Your task to perform on an android device: Toggle the flashlight Image 0: 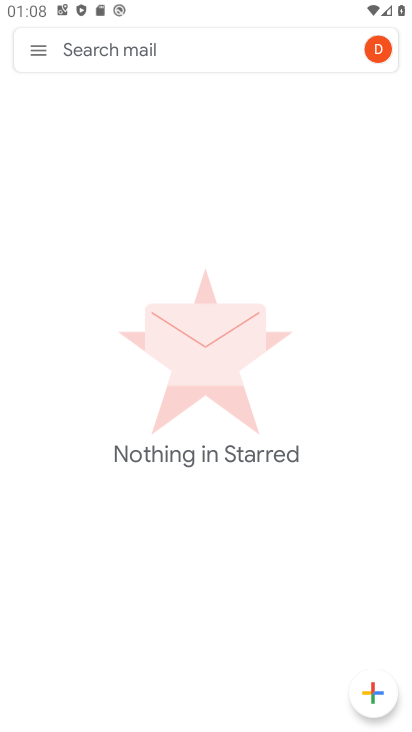
Step 0: press home button
Your task to perform on an android device: Toggle the flashlight Image 1: 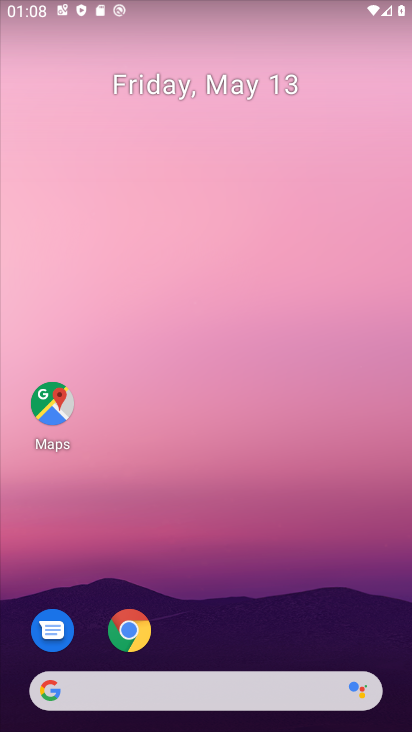
Step 1: drag from (249, 690) to (353, 130)
Your task to perform on an android device: Toggle the flashlight Image 2: 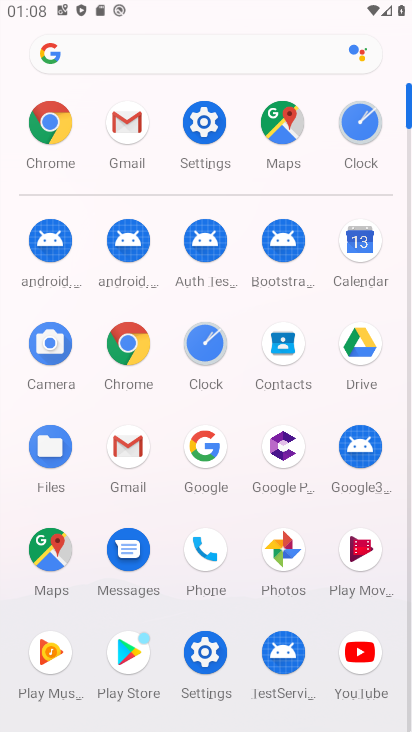
Step 2: click (199, 119)
Your task to perform on an android device: Toggle the flashlight Image 3: 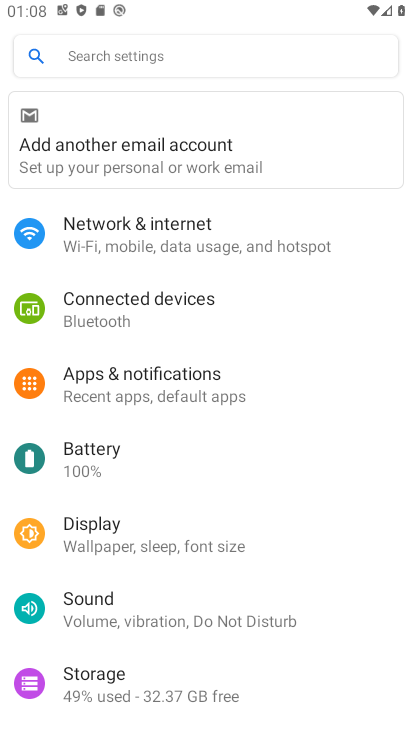
Step 3: click (138, 67)
Your task to perform on an android device: Toggle the flashlight Image 4: 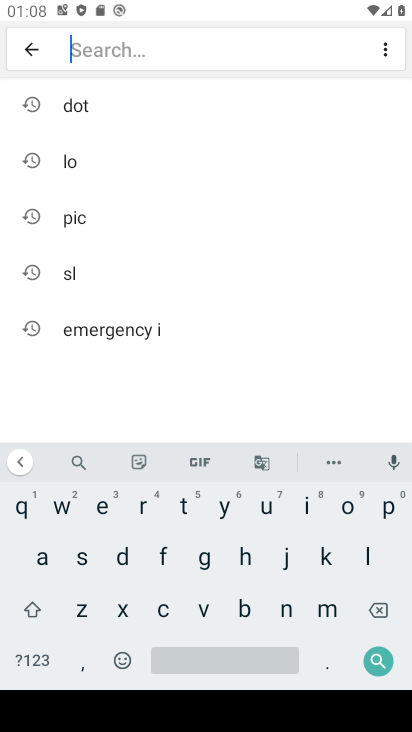
Step 4: click (158, 557)
Your task to perform on an android device: Toggle the flashlight Image 5: 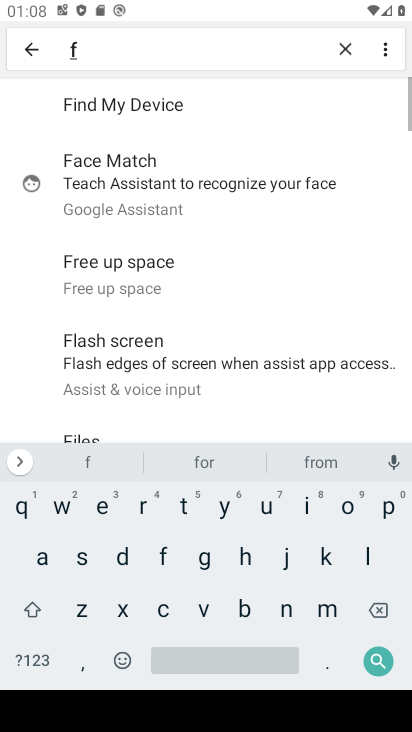
Step 5: click (368, 560)
Your task to perform on an android device: Toggle the flashlight Image 6: 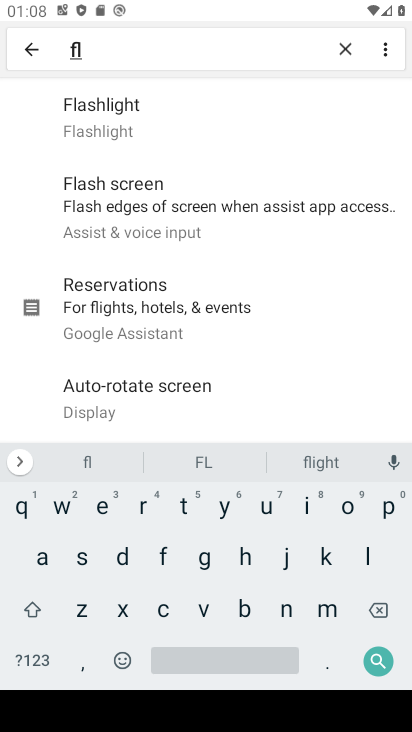
Step 6: click (110, 132)
Your task to perform on an android device: Toggle the flashlight Image 7: 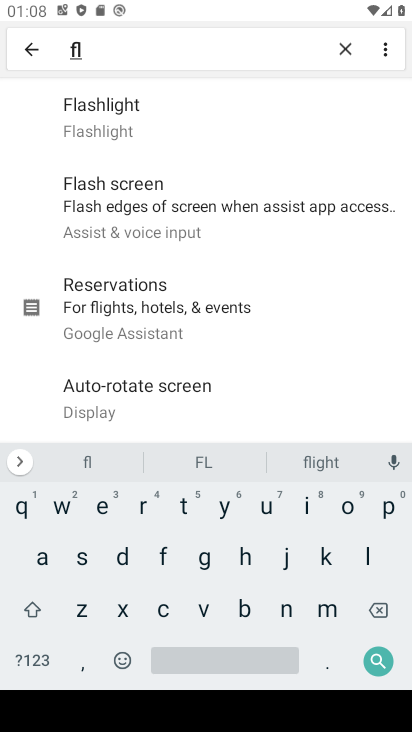
Step 7: click (335, 43)
Your task to perform on an android device: Toggle the flashlight Image 8: 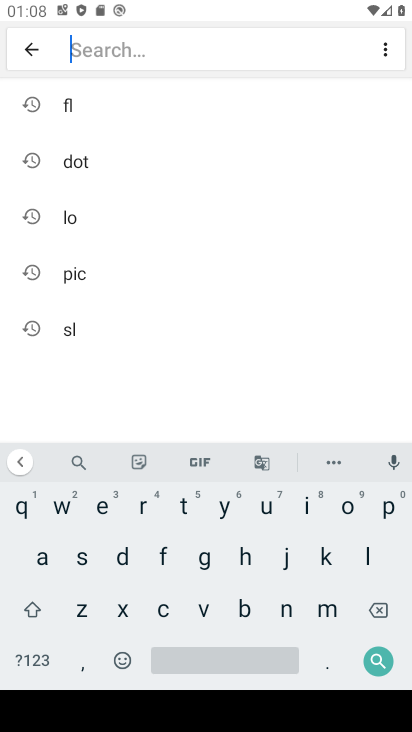
Step 8: click (145, 115)
Your task to perform on an android device: Toggle the flashlight Image 9: 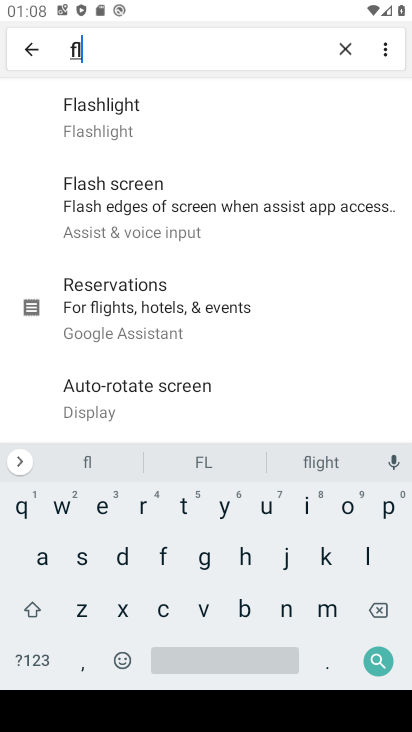
Step 9: task complete